Your task to perform on an android device: set default search engine in the chrome app Image 0: 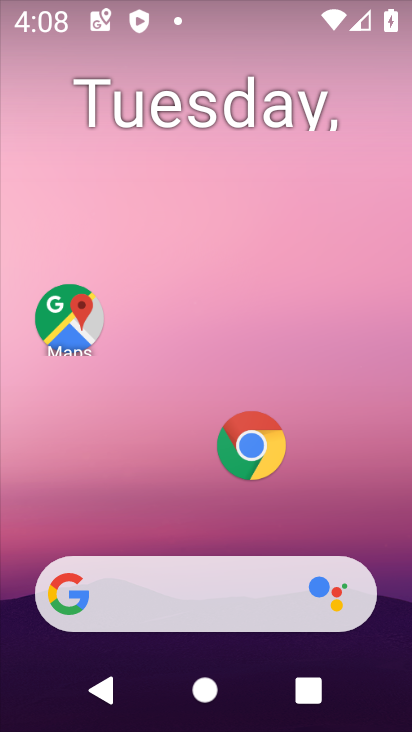
Step 0: click (257, 436)
Your task to perform on an android device: set default search engine in the chrome app Image 1: 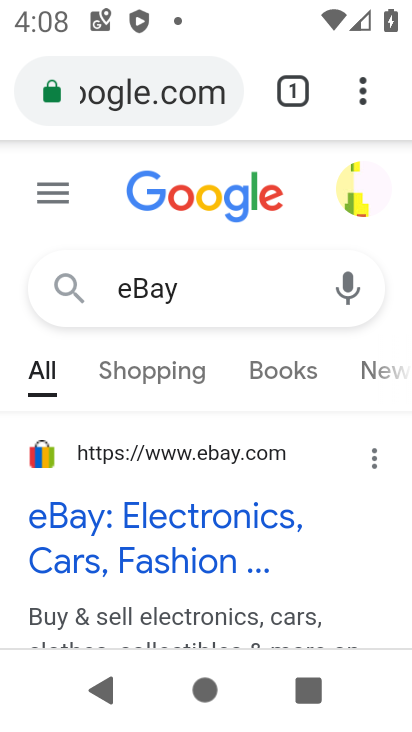
Step 1: click (366, 79)
Your task to perform on an android device: set default search engine in the chrome app Image 2: 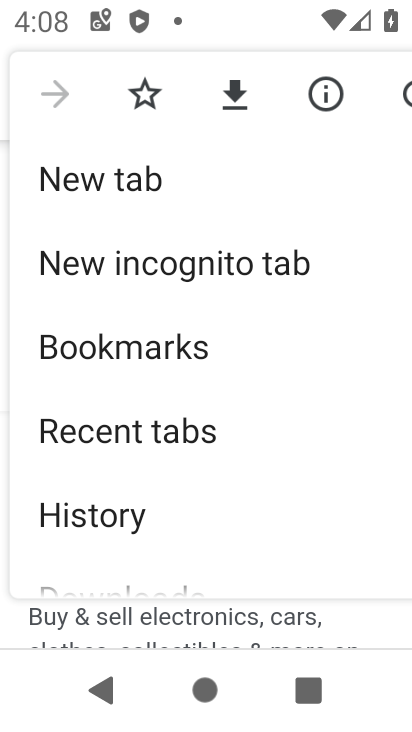
Step 2: drag from (139, 533) to (165, 122)
Your task to perform on an android device: set default search engine in the chrome app Image 3: 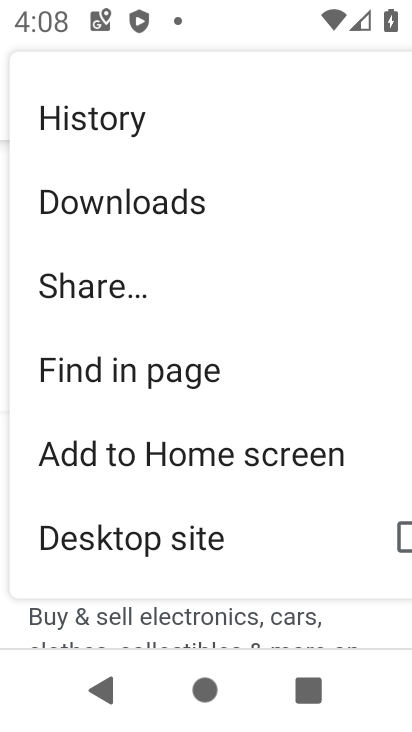
Step 3: drag from (154, 490) to (170, 51)
Your task to perform on an android device: set default search engine in the chrome app Image 4: 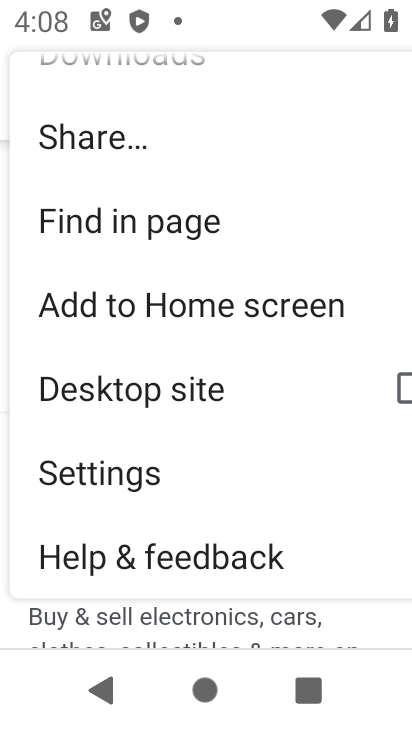
Step 4: click (101, 478)
Your task to perform on an android device: set default search engine in the chrome app Image 5: 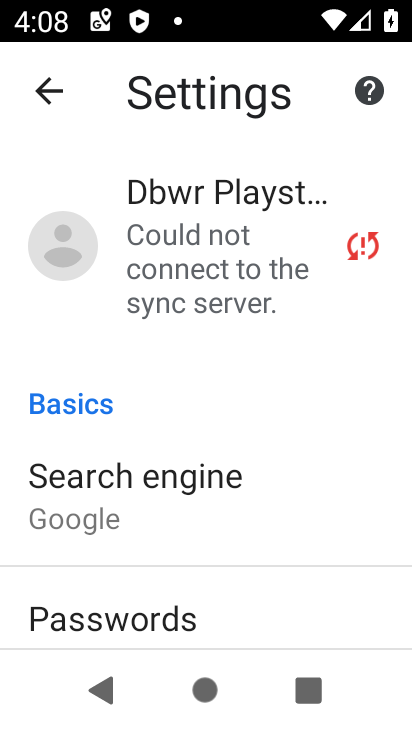
Step 5: drag from (213, 539) to (212, 473)
Your task to perform on an android device: set default search engine in the chrome app Image 6: 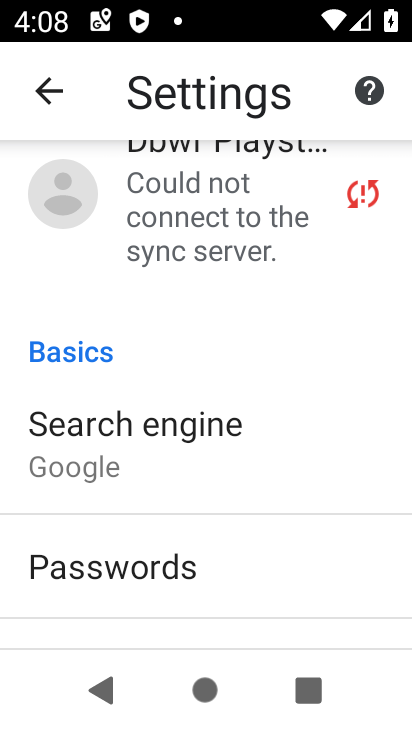
Step 6: click (117, 471)
Your task to perform on an android device: set default search engine in the chrome app Image 7: 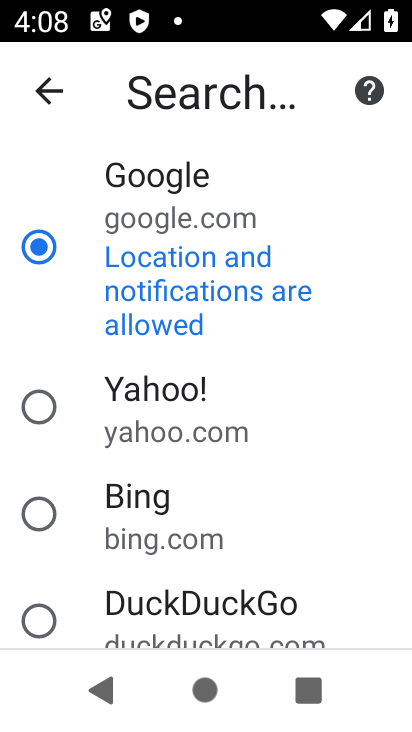
Step 7: click (139, 291)
Your task to perform on an android device: set default search engine in the chrome app Image 8: 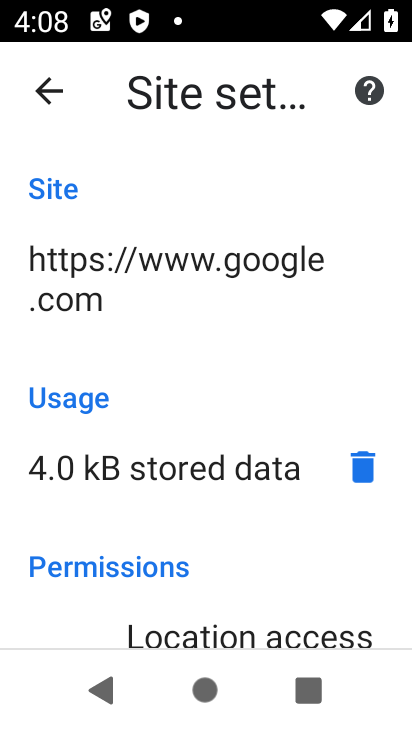
Step 8: drag from (282, 528) to (314, 81)
Your task to perform on an android device: set default search engine in the chrome app Image 9: 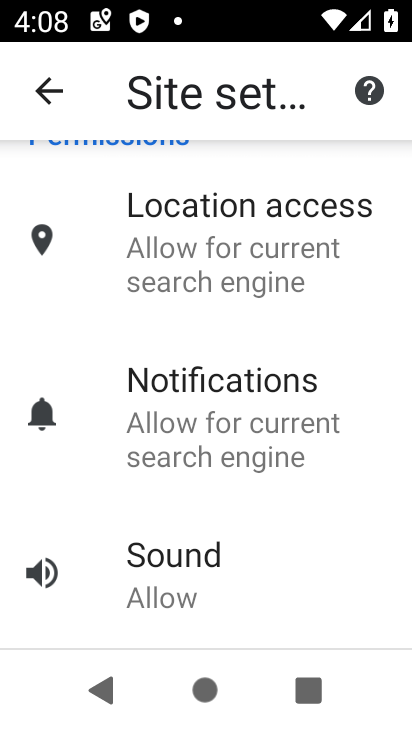
Step 9: drag from (215, 588) to (222, 187)
Your task to perform on an android device: set default search engine in the chrome app Image 10: 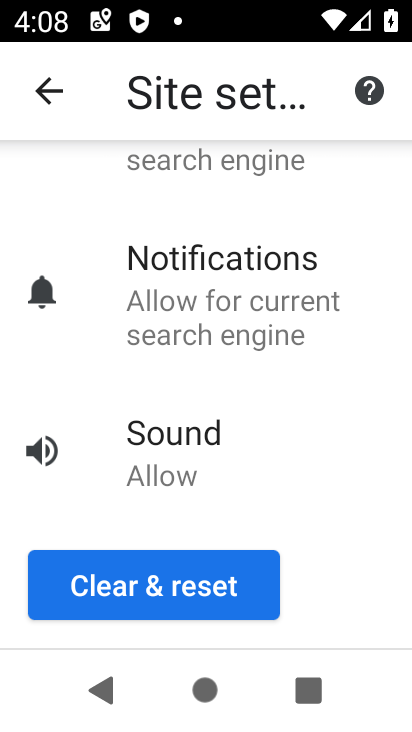
Step 10: click (203, 599)
Your task to perform on an android device: set default search engine in the chrome app Image 11: 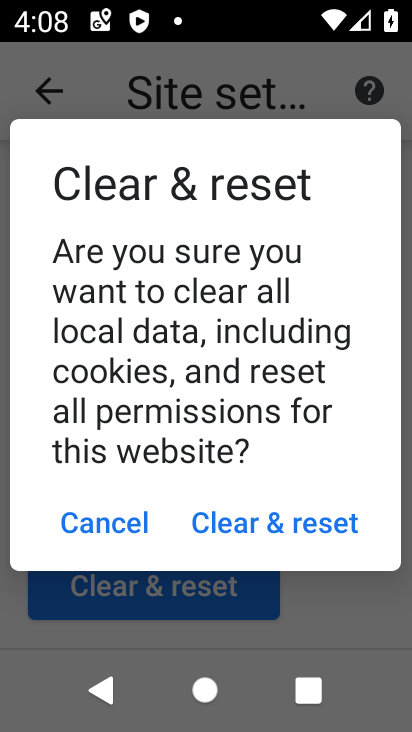
Step 11: click (251, 531)
Your task to perform on an android device: set default search engine in the chrome app Image 12: 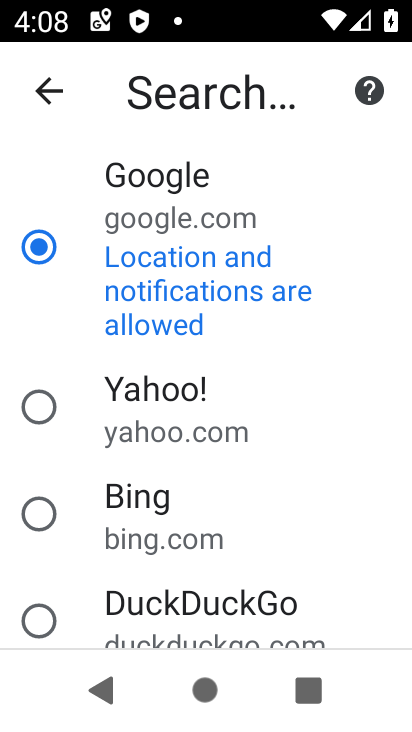
Step 12: task complete